Your task to perform on an android device: Go to internet settings Image 0: 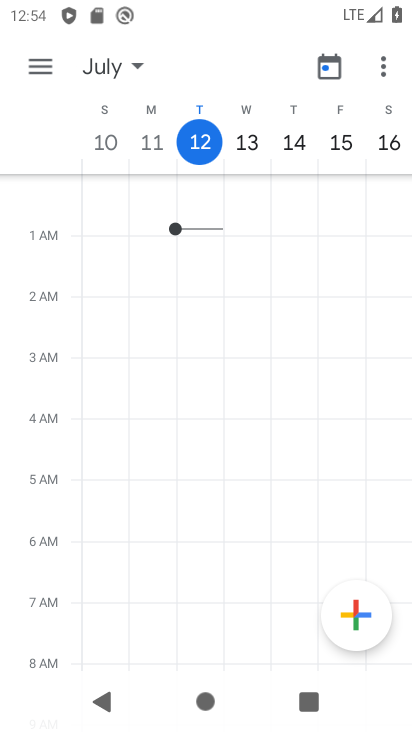
Step 0: press home button
Your task to perform on an android device: Go to internet settings Image 1: 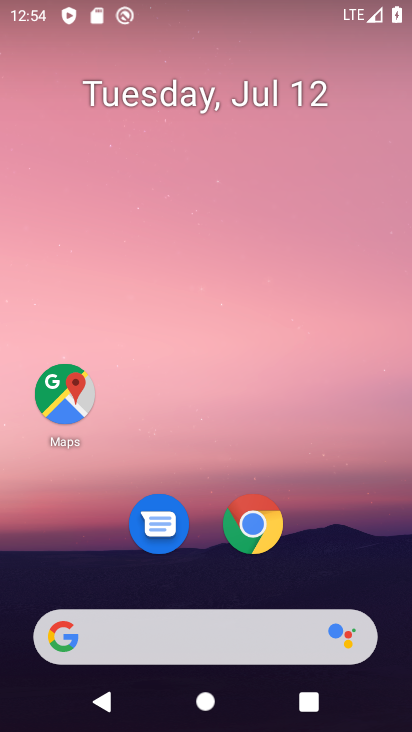
Step 1: drag from (212, 438) to (256, 1)
Your task to perform on an android device: Go to internet settings Image 2: 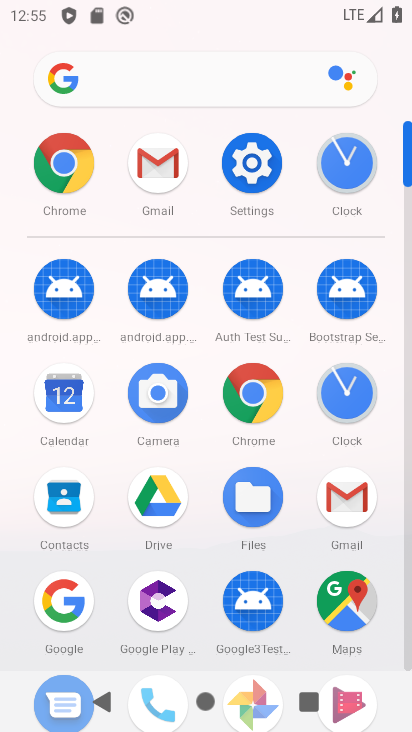
Step 2: click (246, 164)
Your task to perform on an android device: Go to internet settings Image 3: 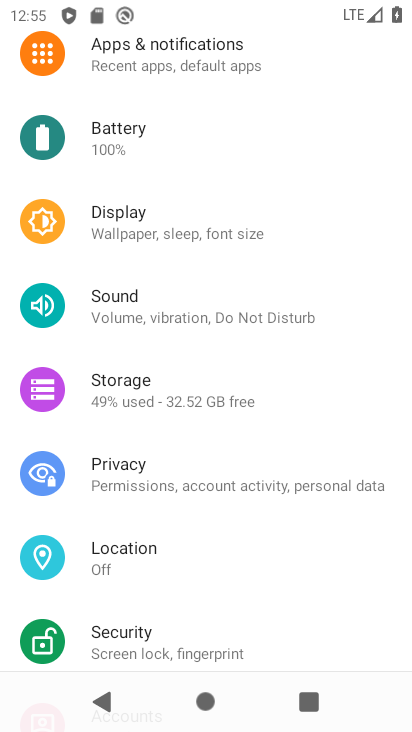
Step 3: drag from (246, 164) to (222, 592)
Your task to perform on an android device: Go to internet settings Image 4: 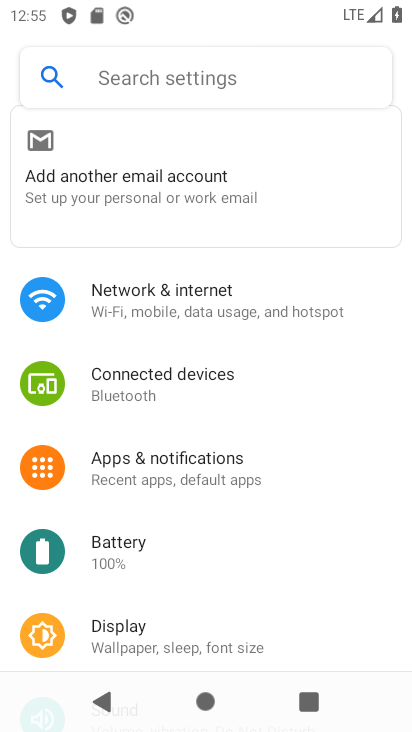
Step 4: click (235, 301)
Your task to perform on an android device: Go to internet settings Image 5: 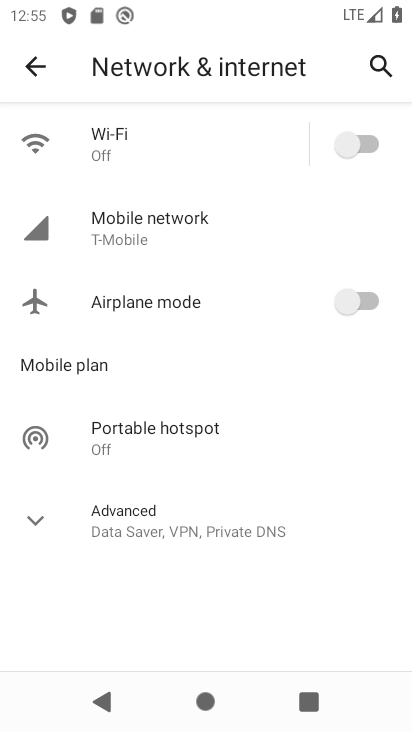
Step 5: task complete